Your task to perform on an android device: Search for razer naga on bestbuy, select the first entry, add it to the cart, then select checkout. Image 0: 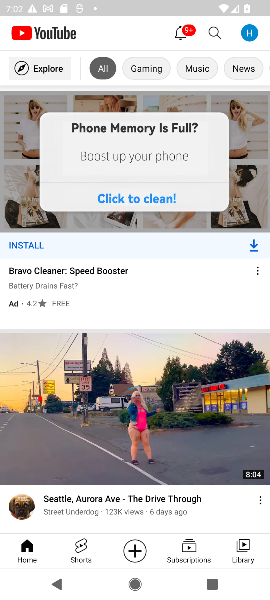
Step 0: press home button
Your task to perform on an android device: Search for razer naga on bestbuy, select the first entry, add it to the cart, then select checkout. Image 1: 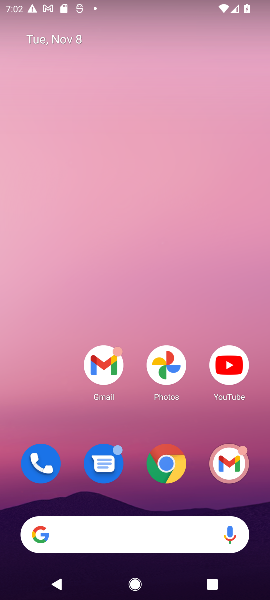
Step 1: click (168, 478)
Your task to perform on an android device: Search for razer naga on bestbuy, select the first entry, add it to the cart, then select checkout. Image 2: 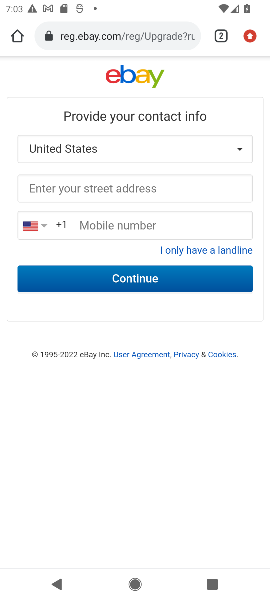
Step 2: click (97, 43)
Your task to perform on an android device: Search for razer naga on bestbuy, select the first entry, add it to the cart, then select checkout. Image 3: 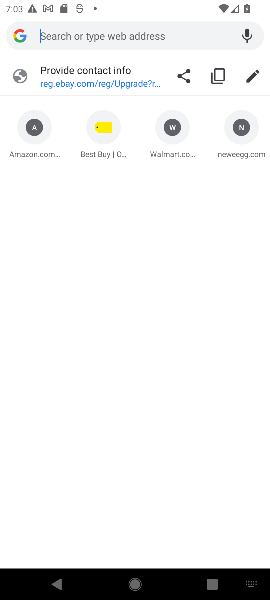
Step 3: click (114, 126)
Your task to perform on an android device: Search for razer naga on bestbuy, select the first entry, add it to the cart, then select checkout. Image 4: 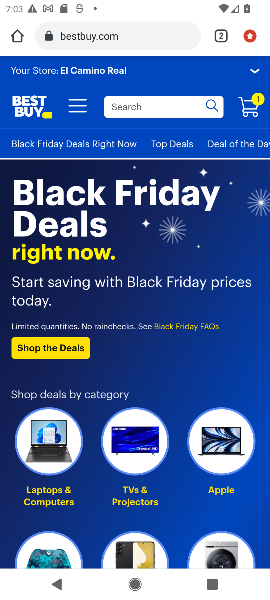
Step 4: click (164, 103)
Your task to perform on an android device: Search for razer naga on bestbuy, select the first entry, add it to the cart, then select checkout. Image 5: 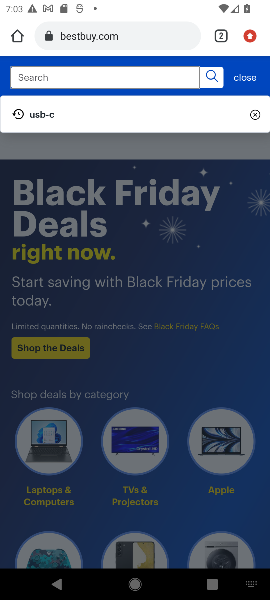
Step 5: type " razer naga "
Your task to perform on an android device: Search for razer naga on bestbuy, select the first entry, add it to the cart, then select checkout. Image 6: 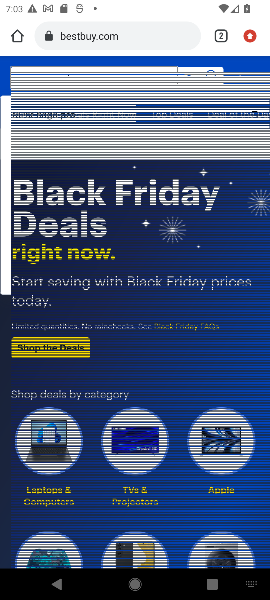
Step 6: click (212, 78)
Your task to perform on an android device: Search for razer naga on bestbuy, select the first entry, add it to the cart, then select checkout. Image 7: 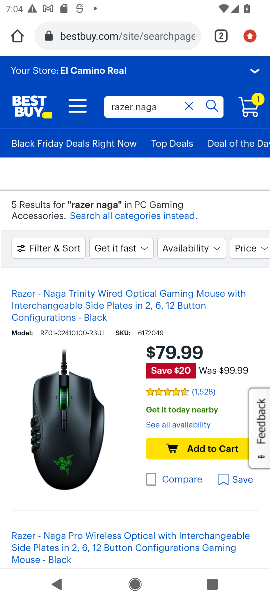
Step 7: click (202, 454)
Your task to perform on an android device: Search for razer naga on bestbuy, select the first entry, add it to the cart, then select checkout. Image 8: 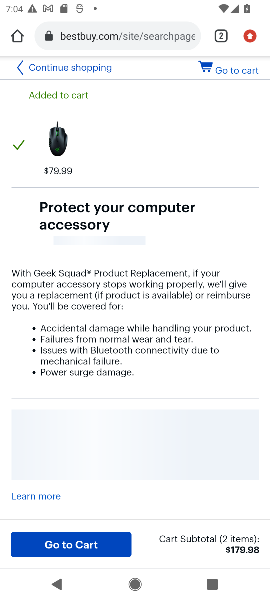
Step 8: click (233, 70)
Your task to perform on an android device: Search for razer naga on bestbuy, select the first entry, add it to the cart, then select checkout. Image 9: 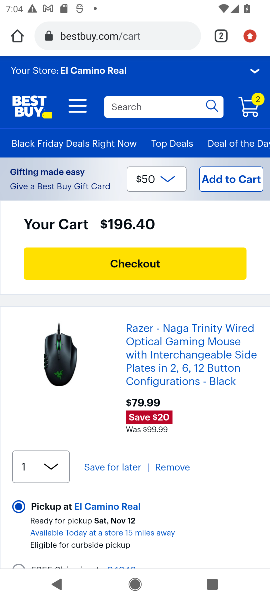
Step 9: click (151, 274)
Your task to perform on an android device: Search for razer naga on bestbuy, select the first entry, add it to the cart, then select checkout. Image 10: 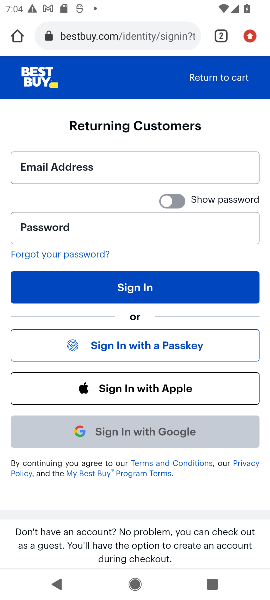
Step 10: task complete